Your task to perform on an android device: turn on the 12-hour format for clock Image 0: 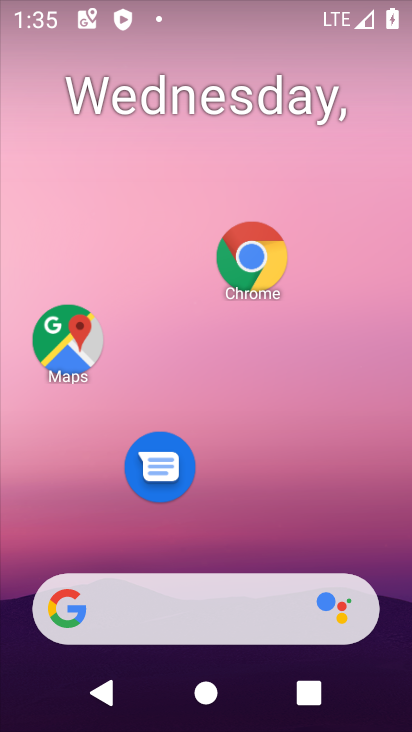
Step 0: drag from (281, 539) to (267, 47)
Your task to perform on an android device: turn on the 12-hour format for clock Image 1: 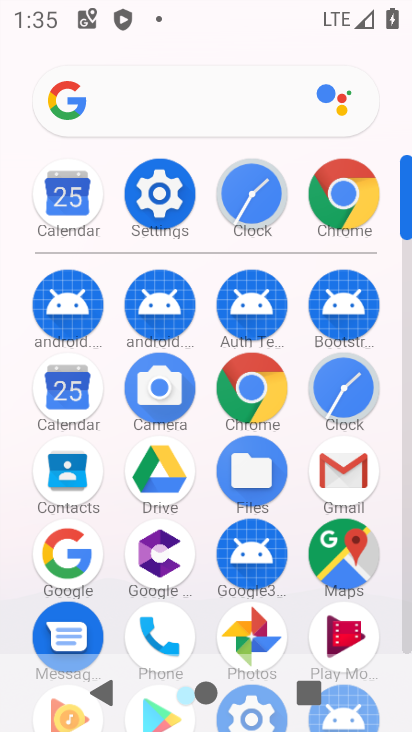
Step 1: click (229, 180)
Your task to perform on an android device: turn on the 12-hour format for clock Image 2: 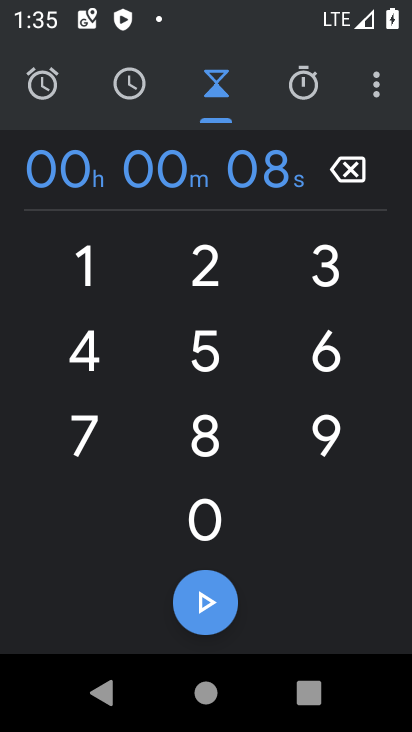
Step 2: click (382, 84)
Your task to perform on an android device: turn on the 12-hour format for clock Image 3: 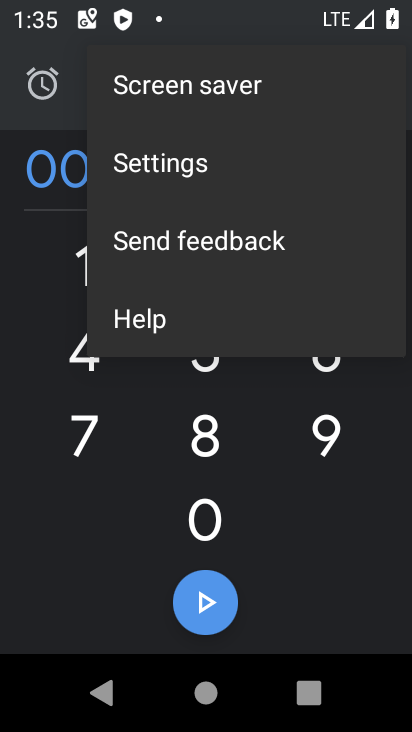
Step 3: click (196, 169)
Your task to perform on an android device: turn on the 12-hour format for clock Image 4: 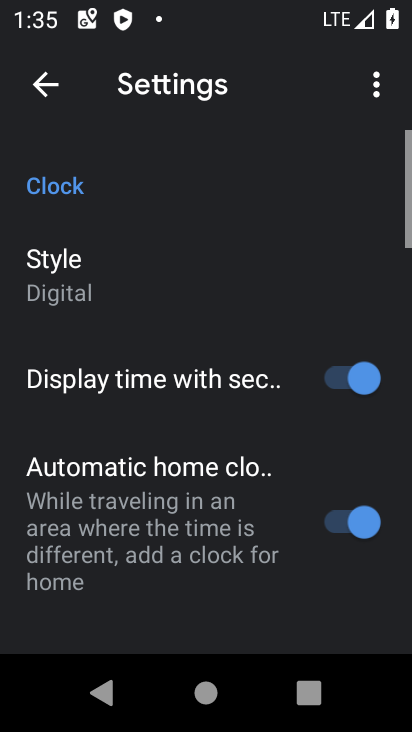
Step 4: drag from (245, 586) to (198, 155)
Your task to perform on an android device: turn on the 12-hour format for clock Image 5: 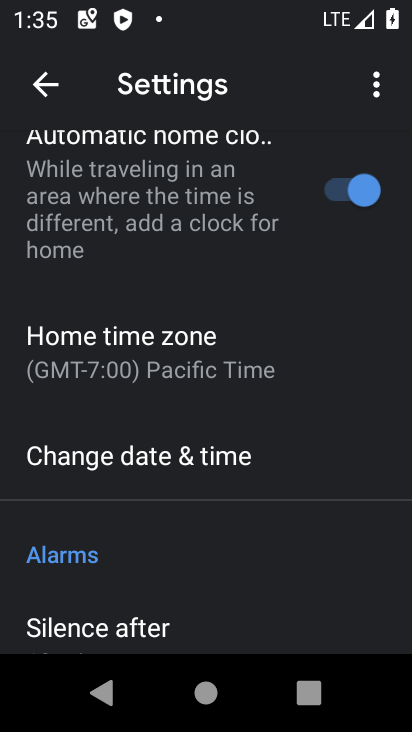
Step 5: click (126, 459)
Your task to perform on an android device: turn on the 12-hour format for clock Image 6: 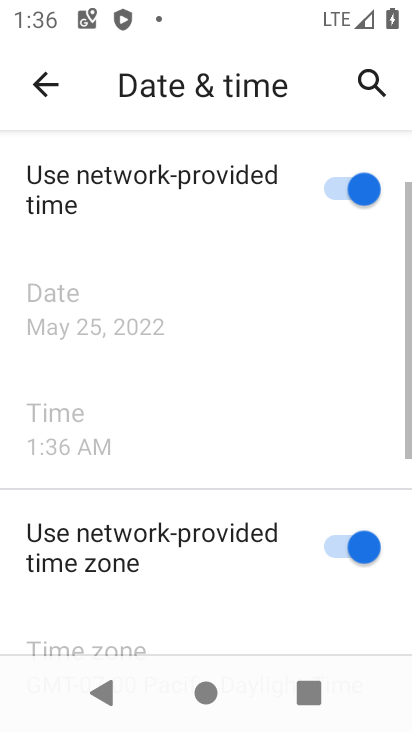
Step 6: task complete